Your task to perform on an android device: check battery use Image 0: 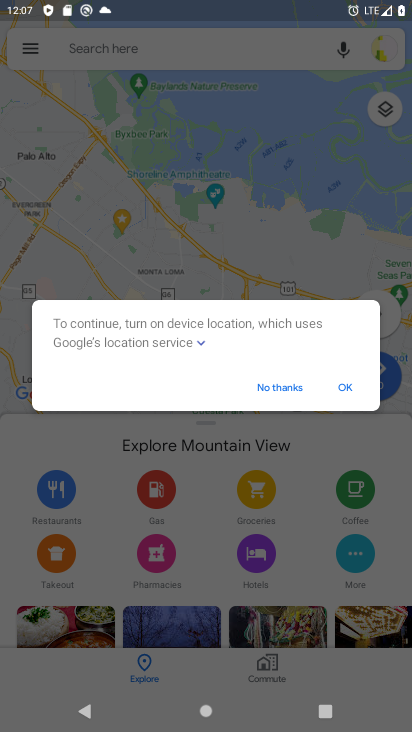
Step 0: click (349, 387)
Your task to perform on an android device: check battery use Image 1: 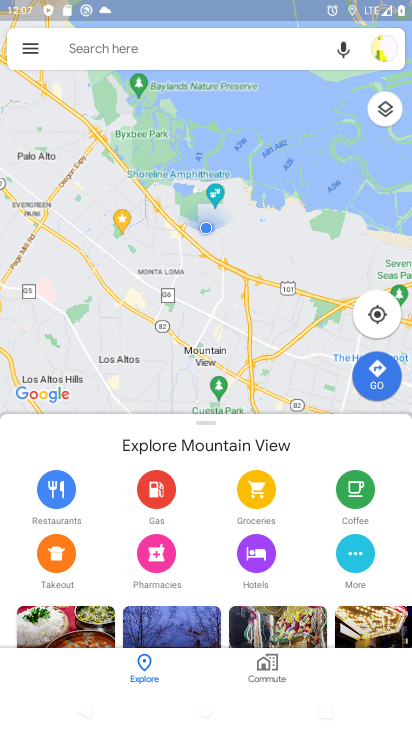
Step 1: press home button
Your task to perform on an android device: check battery use Image 2: 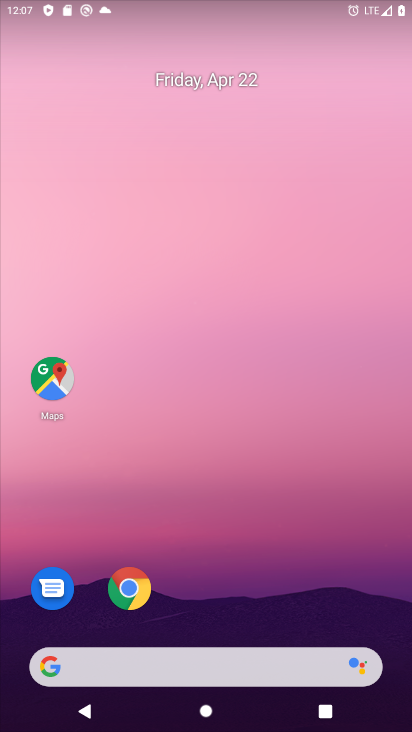
Step 2: drag from (296, 568) to (337, 231)
Your task to perform on an android device: check battery use Image 3: 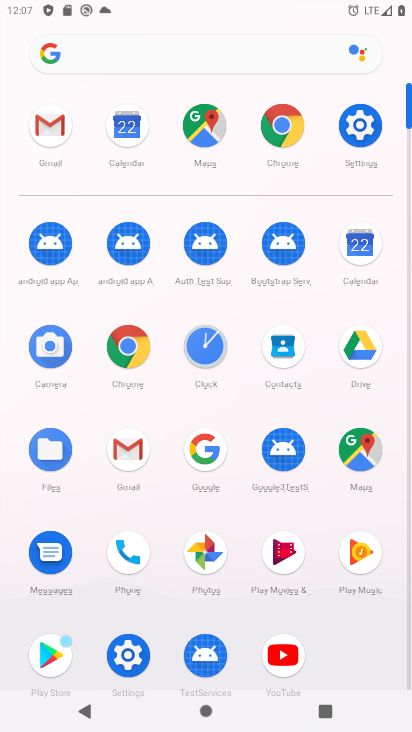
Step 3: click (366, 140)
Your task to perform on an android device: check battery use Image 4: 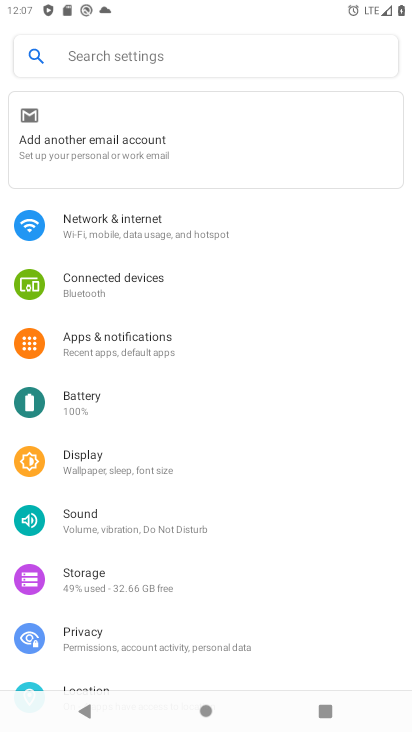
Step 4: click (100, 399)
Your task to perform on an android device: check battery use Image 5: 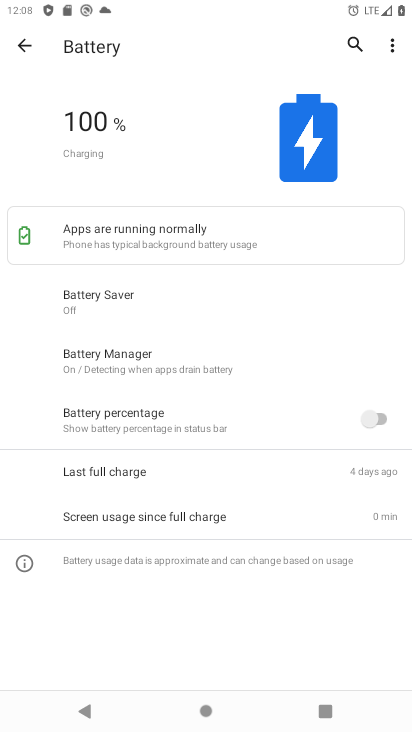
Step 5: task complete